Your task to perform on an android device: Search for macbook air on target, select the first entry, add it to the cart, then select checkout. Image 0: 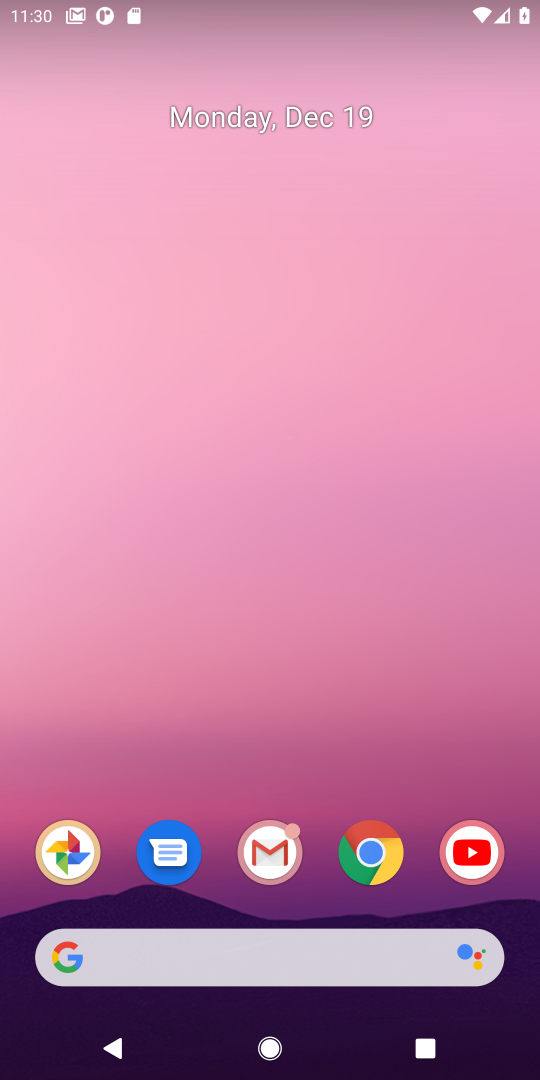
Step 0: click (369, 859)
Your task to perform on an android device: Search for macbook air on target, select the first entry, add it to the cart, then select checkout. Image 1: 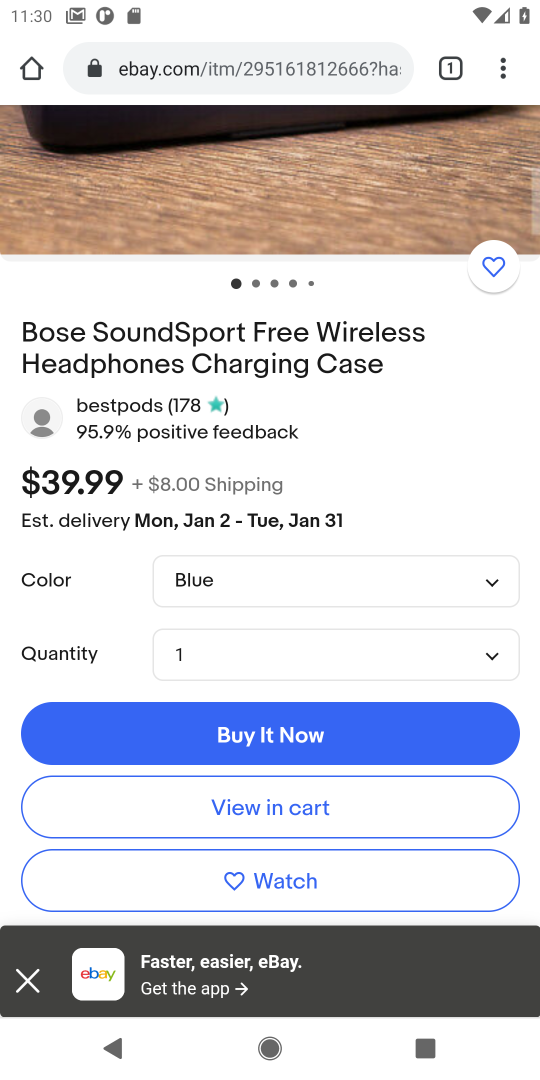
Step 1: click (235, 64)
Your task to perform on an android device: Search for macbook air on target, select the first entry, add it to the cart, then select checkout. Image 2: 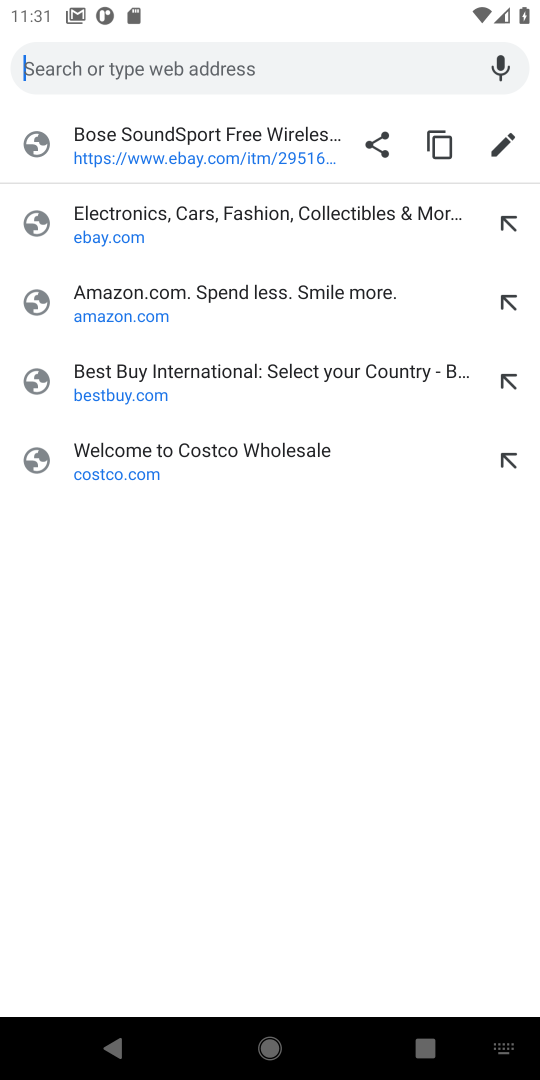
Step 2: type "target.com"
Your task to perform on an android device: Search for macbook air on target, select the first entry, add it to the cart, then select checkout. Image 3: 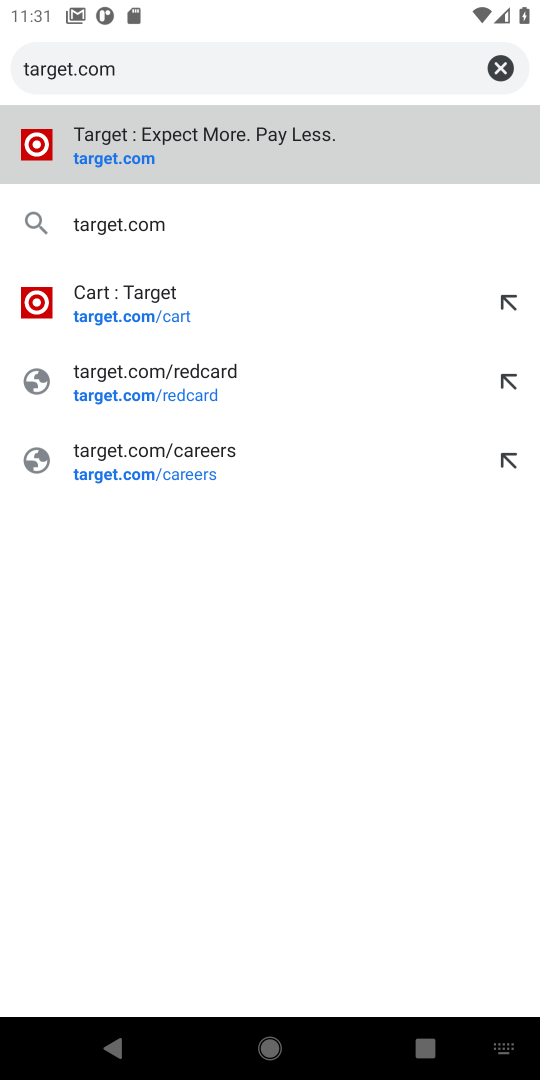
Step 3: click (112, 163)
Your task to perform on an android device: Search for macbook air on target, select the first entry, add it to the cart, then select checkout. Image 4: 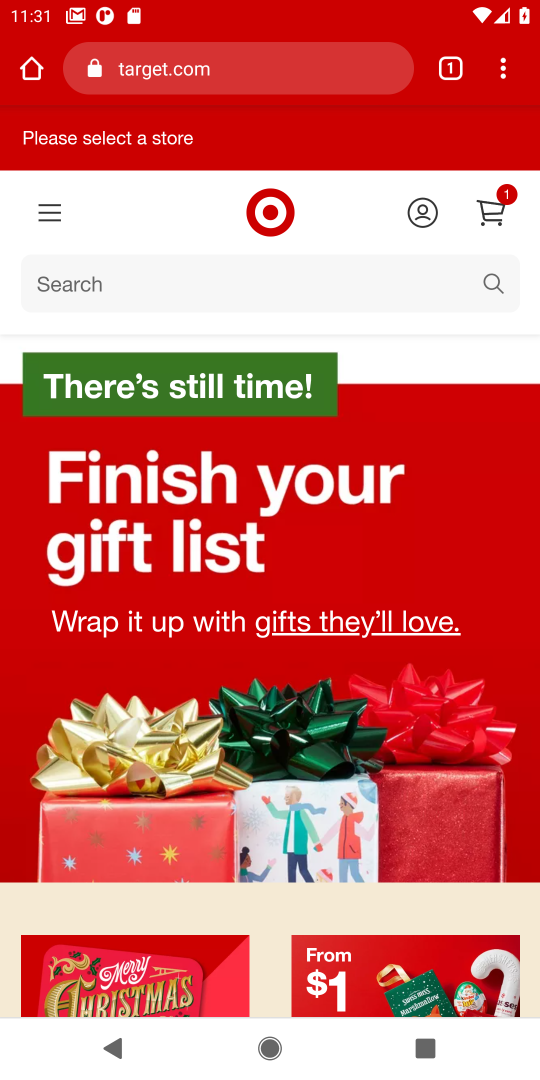
Step 4: click (77, 292)
Your task to perform on an android device: Search for macbook air on target, select the first entry, add it to the cart, then select checkout. Image 5: 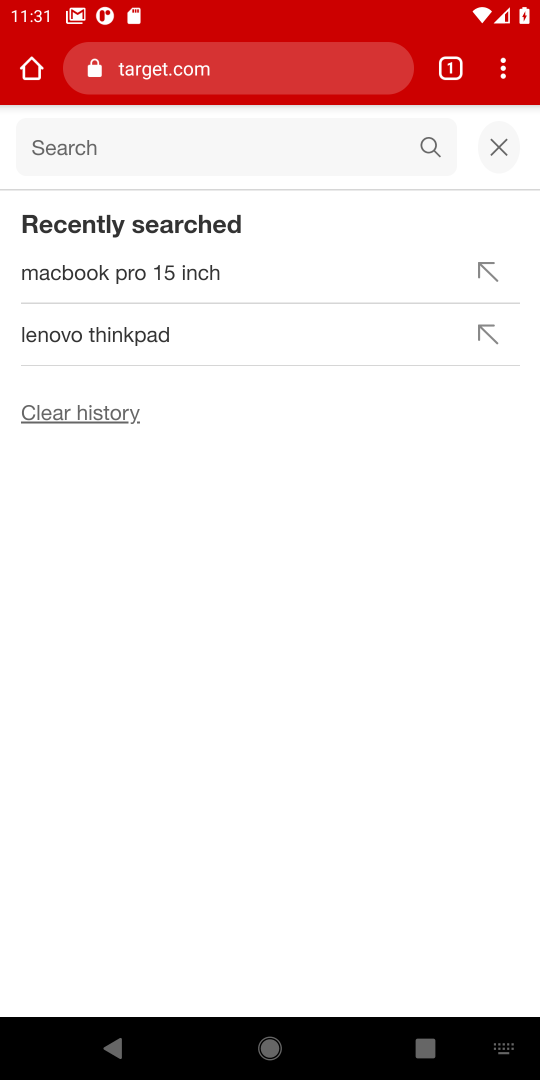
Step 5: type "macbook air"
Your task to perform on an android device: Search for macbook air on target, select the first entry, add it to the cart, then select checkout. Image 6: 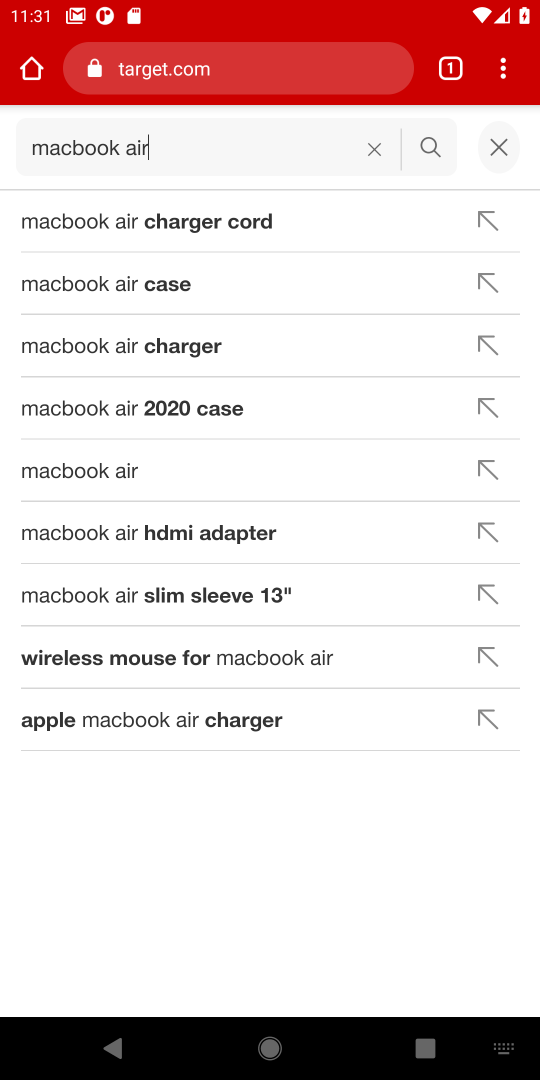
Step 6: click (115, 475)
Your task to perform on an android device: Search for macbook air on target, select the first entry, add it to the cart, then select checkout. Image 7: 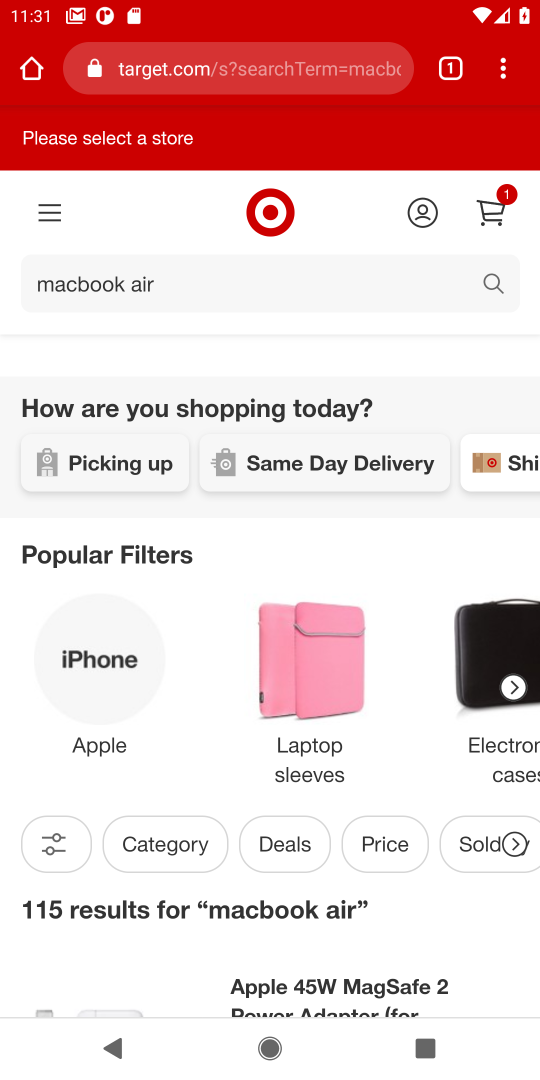
Step 7: drag from (156, 636) to (134, 258)
Your task to perform on an android device: Search for macbook air on target, select the first entry, add it to the cart, then select checkout. Image 8: 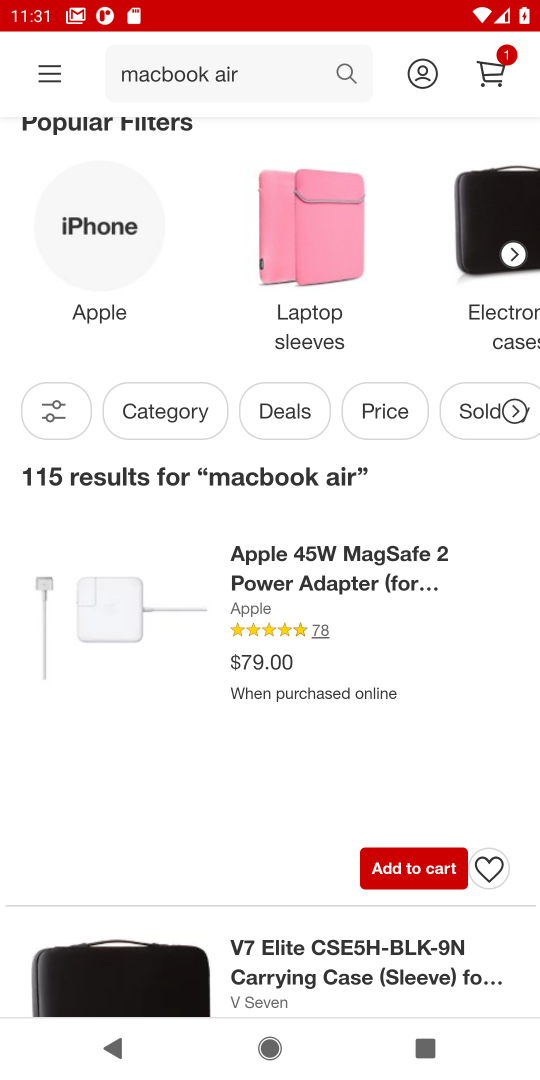
Step 8: click (280, 610)
Your task to perform on an android device: Search for macbook air on target, select the first entry, add it to the cart, then select checkout. Image 9: 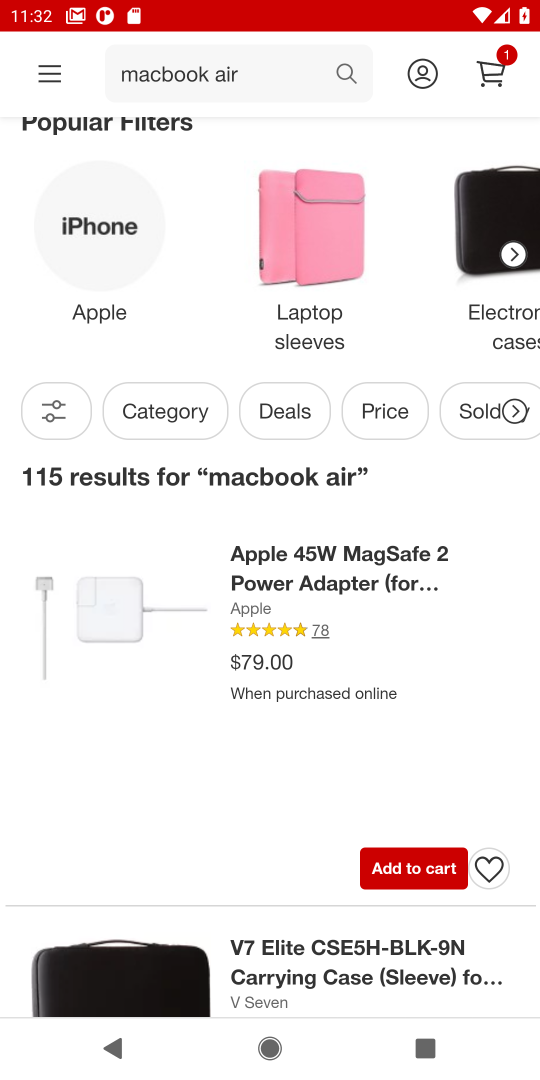
Step 9: click (284, 577)
Your task to perform on an android device: Search for macbook air on target, select the first entry, add it to the cart, then select checkout. Image 10: 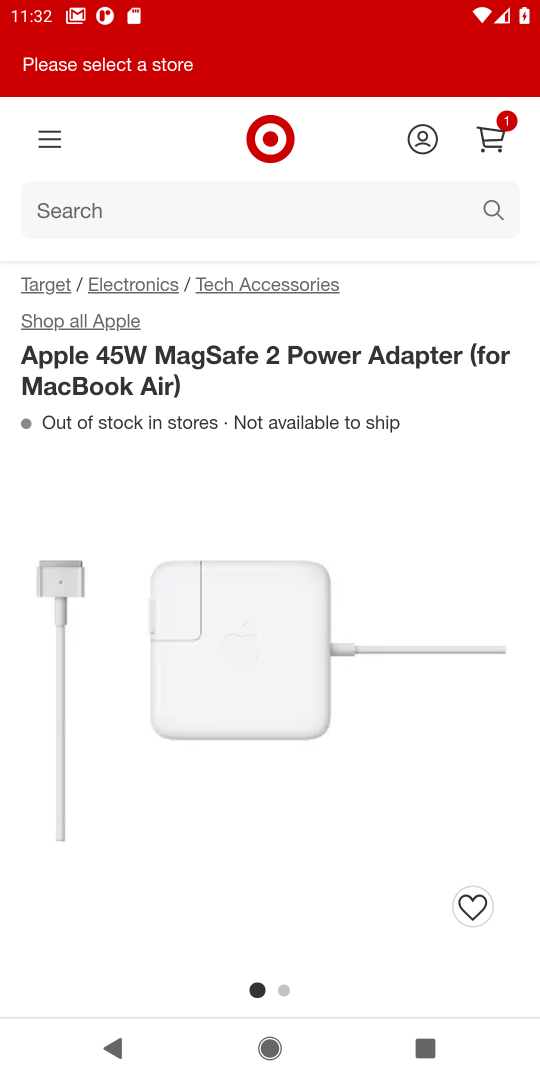
Step 10: drag from (302, 814) to (260, 400)
Your task to perform on an android device: Search for macbook air on target, select the first entry, add it to the cart, then select checkout. Image 11: 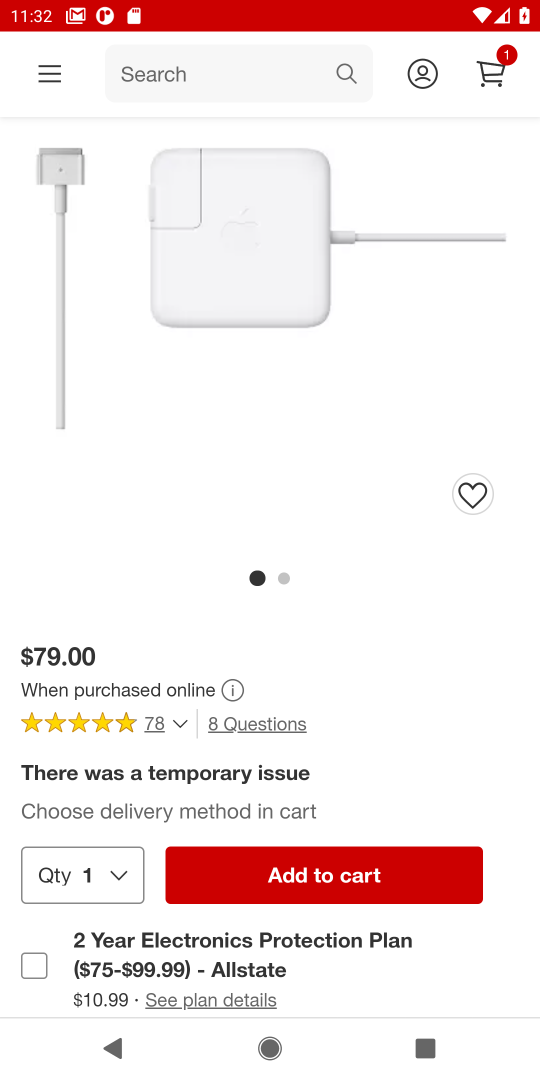
Step 11: click (308, 880)
Your task to perform on an android device: Search for macbook air on target, select the first entry, add it to the cart, then select checkout. Image 12: 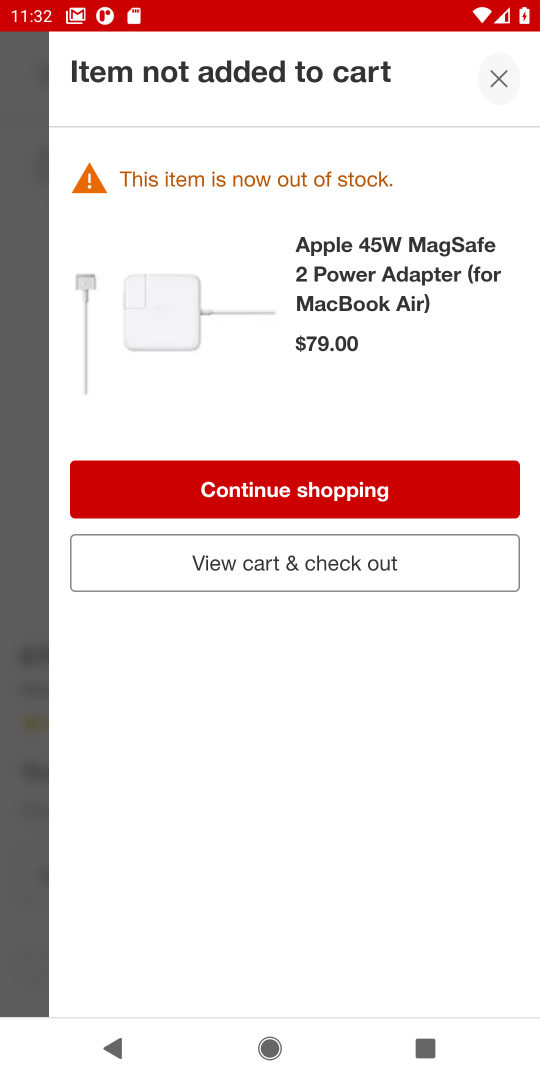
Step 12: click (279, 572)
Your task to perform on an android device: Search for macbook air on target, select the first entry, add it to the cart, then select checkout. Image 13: 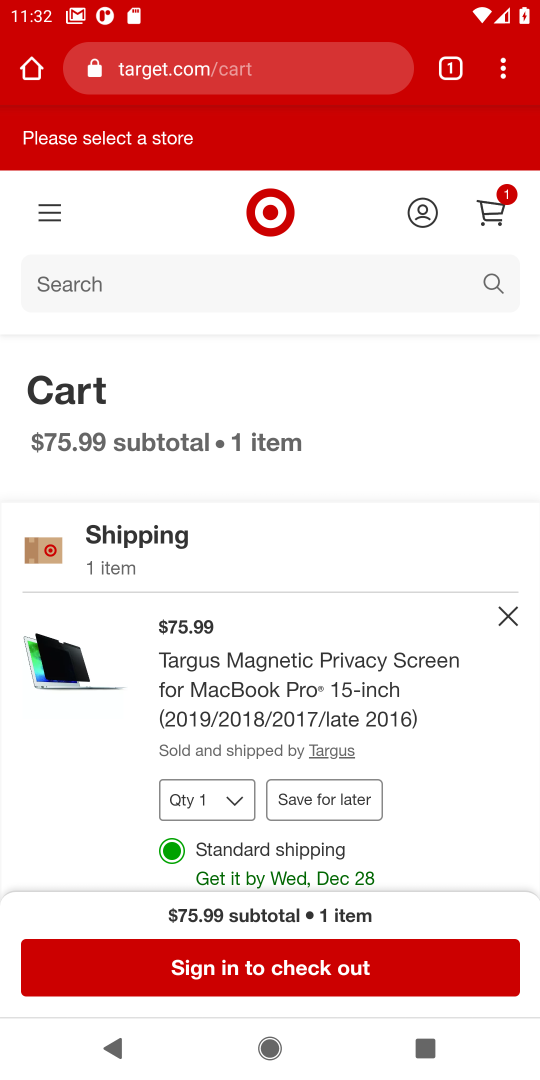
Step 13: click (246, 976)
Your task to perform on an android device: Search for macbook air on target, select the first entry, add it to the cart, then select checkout. Image 14: 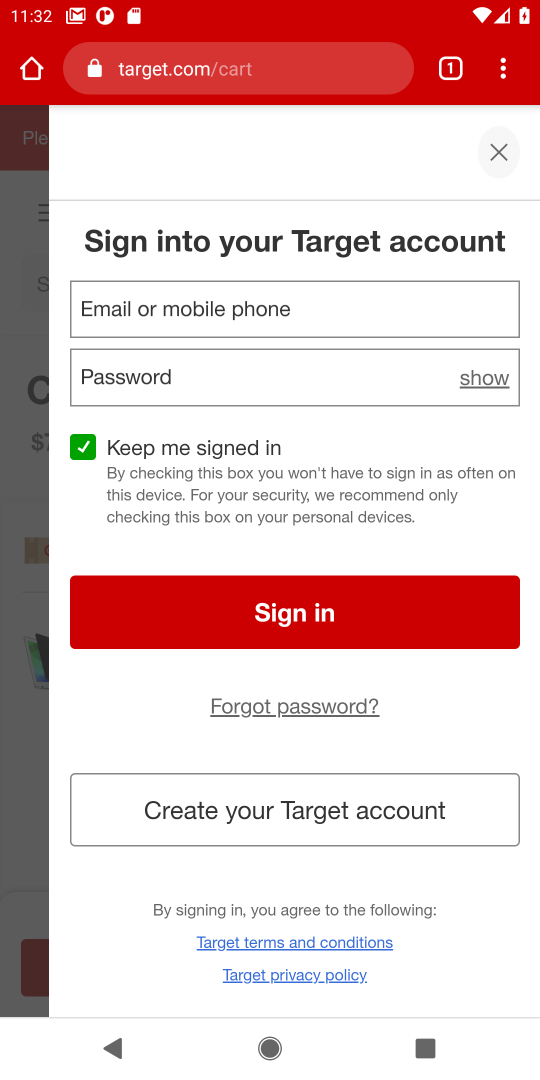
Step 14: task complete